Your task to perform on an android device: change the clock display to show seconds Image 0: 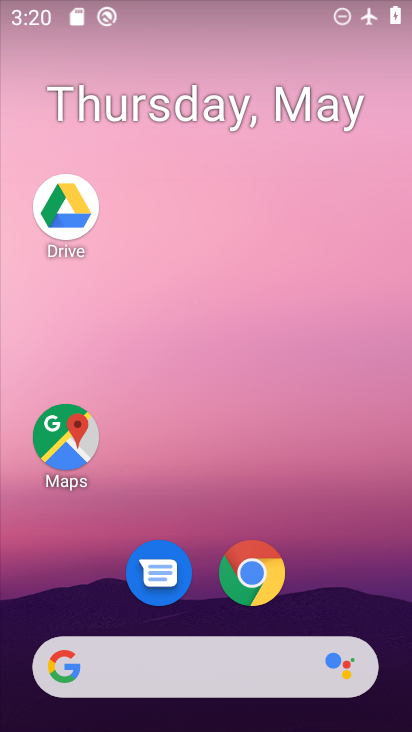
Step 0: drag from (193, 489) to (161, 0)
Your task to perform on an android device: change the clock display to show seconds Image 1: 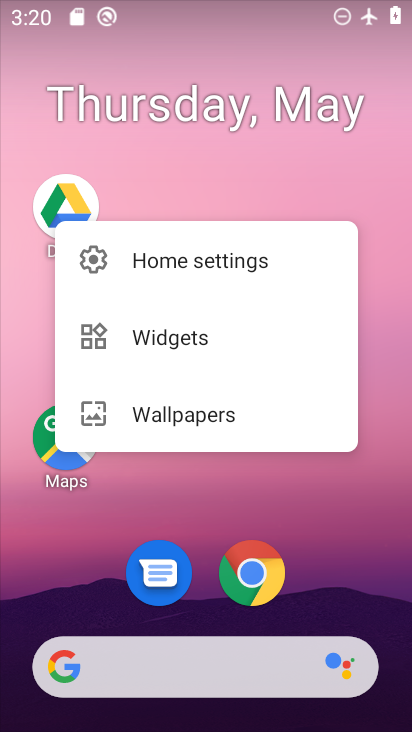
Step 1: click (190, 190)
Your task to perform on an android device: change the clock display to show seconds Image 2: 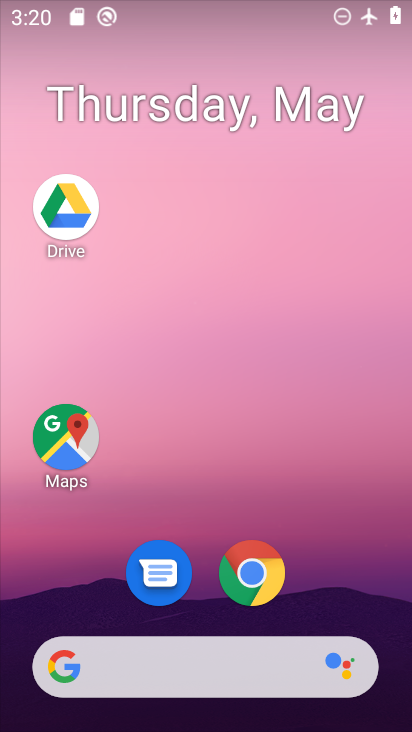
Step 2: drag from (161, 395) to (161, 38)
Your task to perform on an android device: change the clock display to show seconds Image 3: 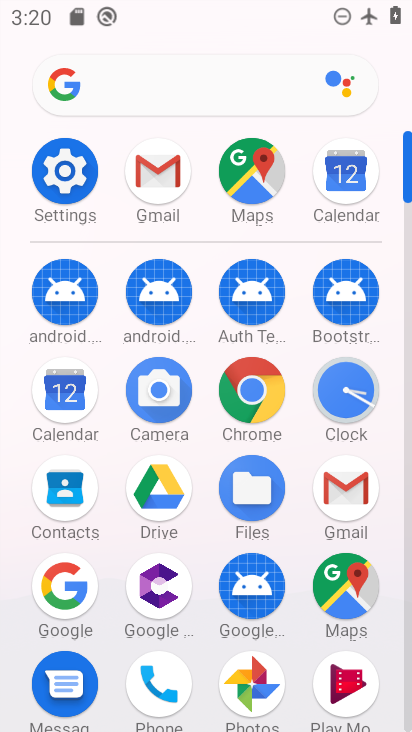
Step 3: drag from (209, 199) to (336, 464)
Your task to perform on an android device: change the clock display to show seconds Image 4: 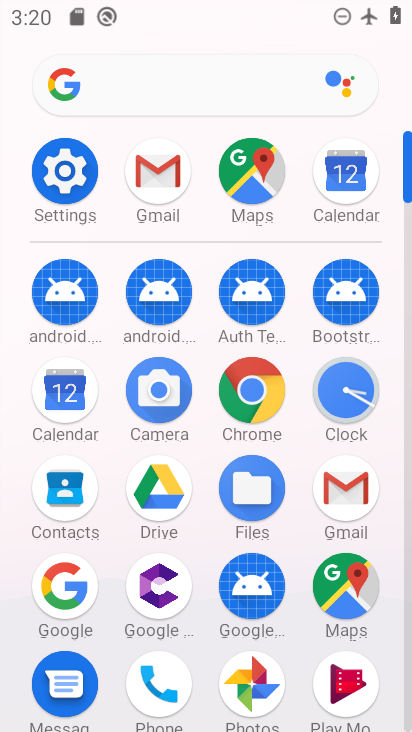
Step 4: click (333, 394)
Your task to perform on an android device: change the clock display to show seconds Image 5: 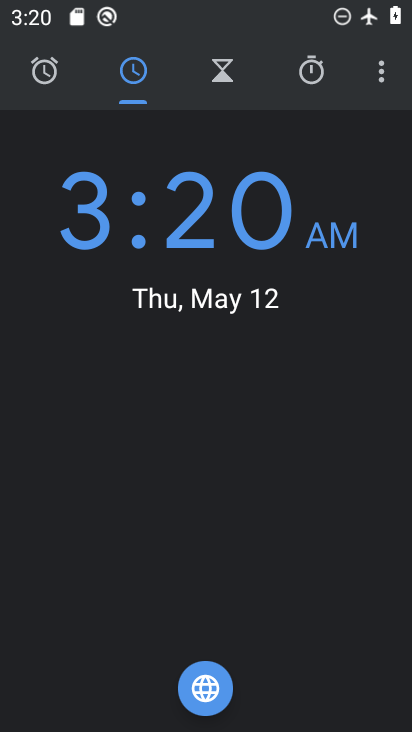
Step 5: click (344, 403)
Your task to perform on an android device: change the clock display to show seconds Image 6: 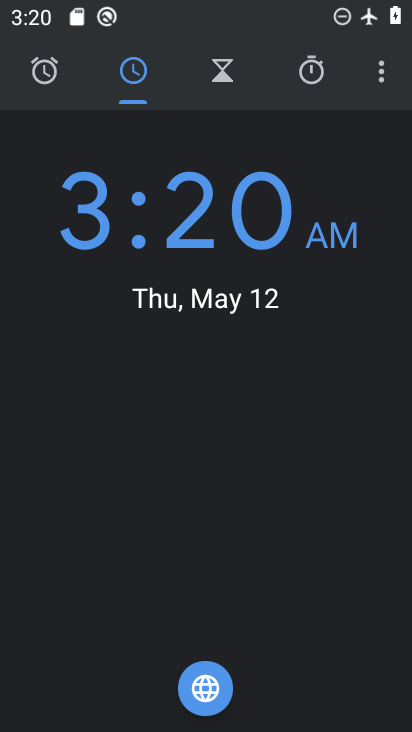
Step 6: click (386, 70)
Your task to perform on an android device: change the clock display to show seconds Image 7: 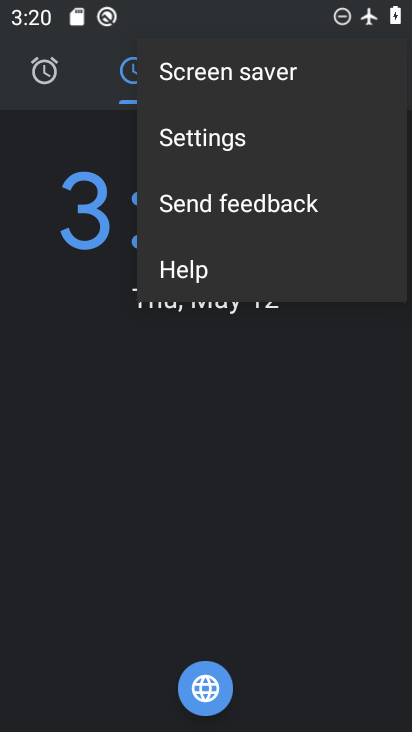
Step 7: click (212, 129)
Your task to perform on an android device: change the clock display to show seconds Image 8: 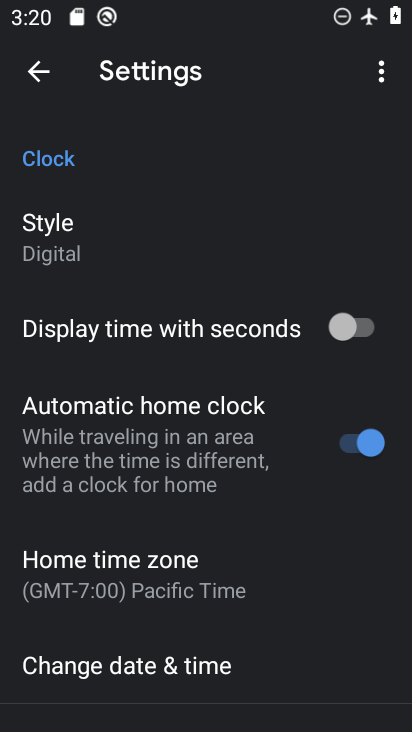
Step 8: click (337, 327)
Your task to perform on an android device: change the clock display to show seconds Image 9: 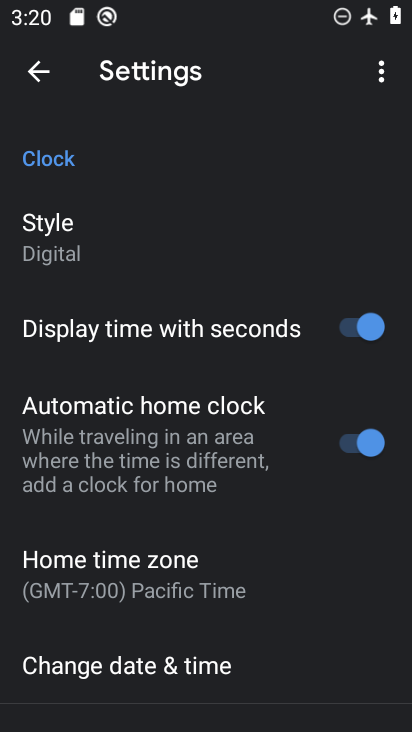
Step 9: task complete